Your task to perform on an android device: toggle wifi Image 0: 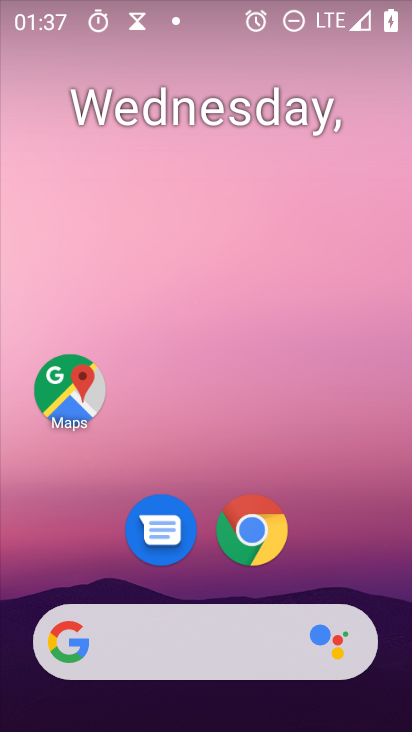
Step 0: drag from (291, 605) to (237, 0)
Your task to perform on an android device: toggle wifi Image 1: 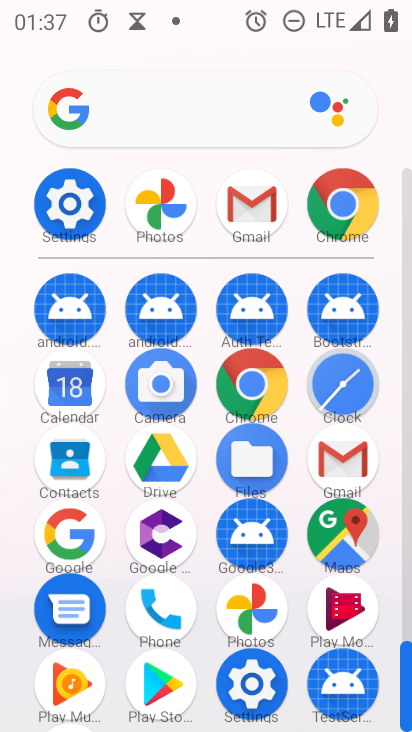
Step 1: click (67, 218)
Your task to perform on an android device: toggle wifi Image 2: 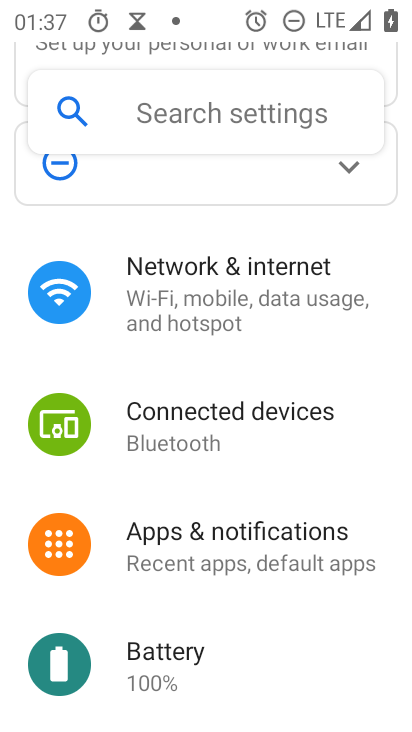
Step 2: click (252, 284)
Your task to perform on an android device: toggle wifi Image 3: 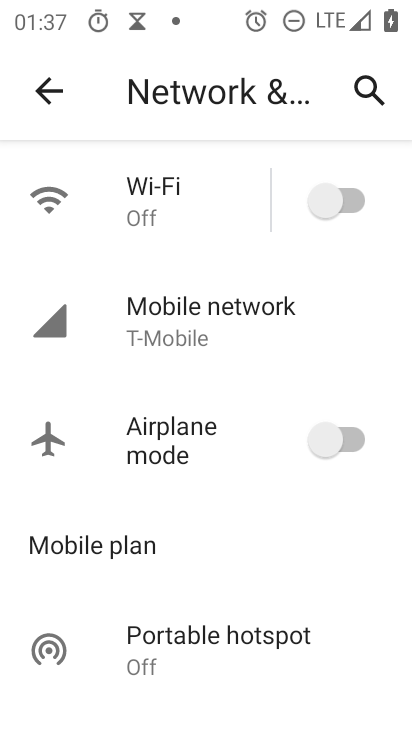
Step 3: click (354, 205)
Your task to perform on an android device: toggle wifi Image 4: 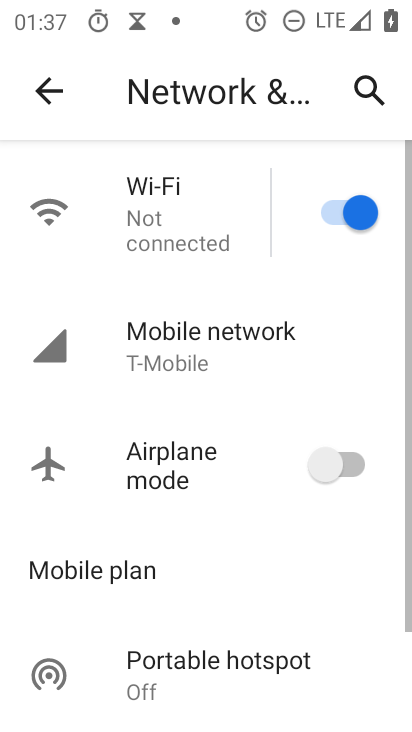
Step 4: task complete